Your task to perform on an android device: Open calendar and show me the second week of next month Image 0: 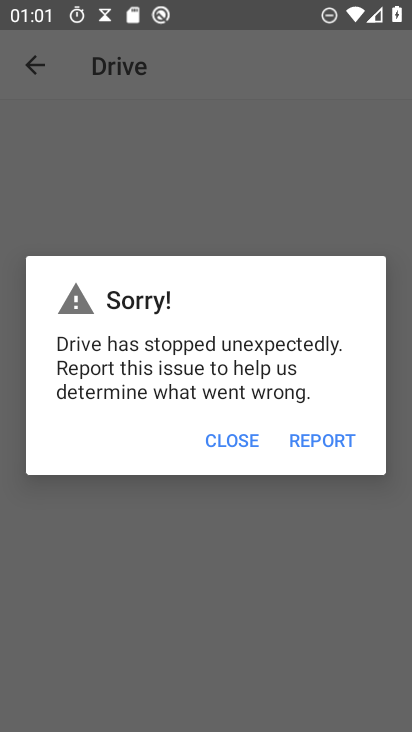
Step 0: press home button
Your task to perform on an android device: Open calendar and show me the second week of next month Image 1: 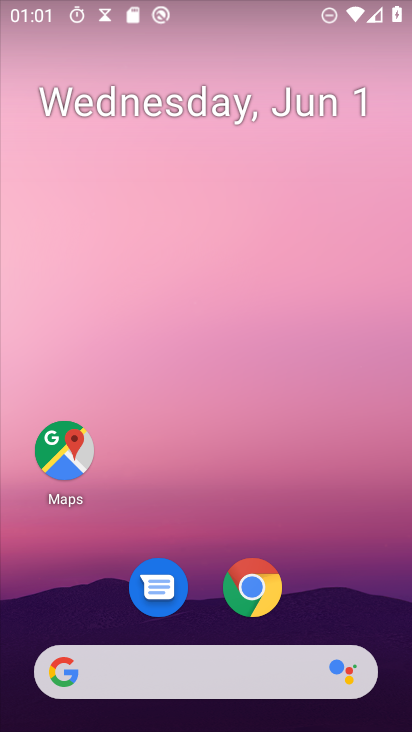
Step 1: drag from (312, 611) to (245, 54)
Your task to perform on an android device: Open calendar and show me the second week of next month Image 2: 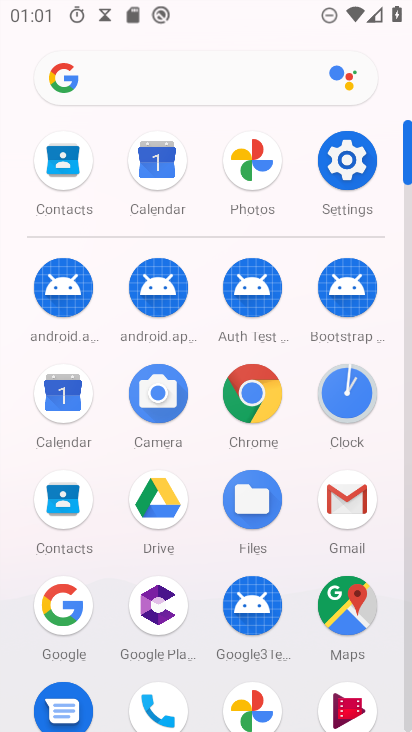
Step 2: click (55, 414)
Your task to perform on an android device: Open calendar and show me the second week of next month Image 3: 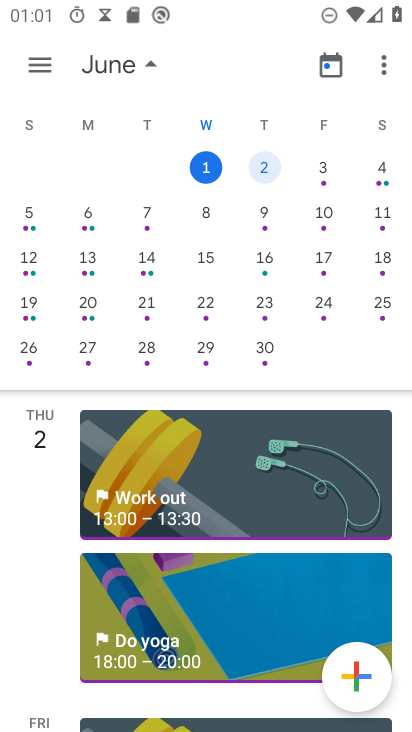
Step 3: click (266, 169)
Your task to perform on an android device: Open calendar and show me the second week of next month Image 4: 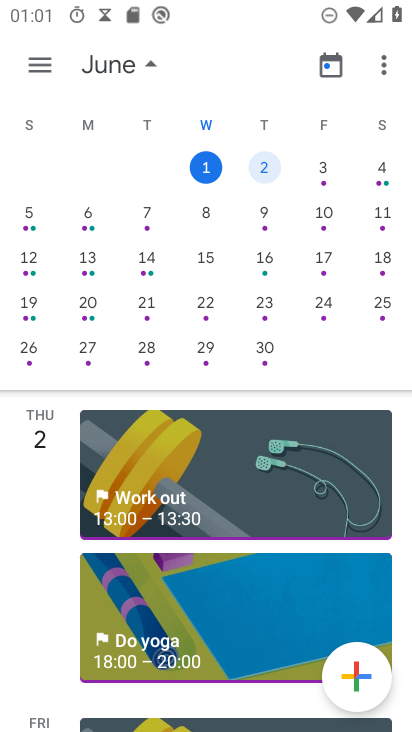
Step 4: click (23, 222)
Your task to perform on an android device: Open calendar and show me the second week of next month Image 5: 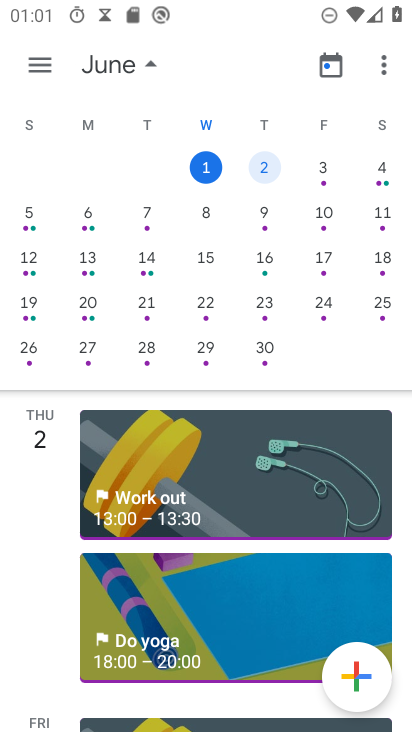
Step 5: click (42, 220)
Your task to perform on an android device: Open calendar and show me the second week of next month Image 6: 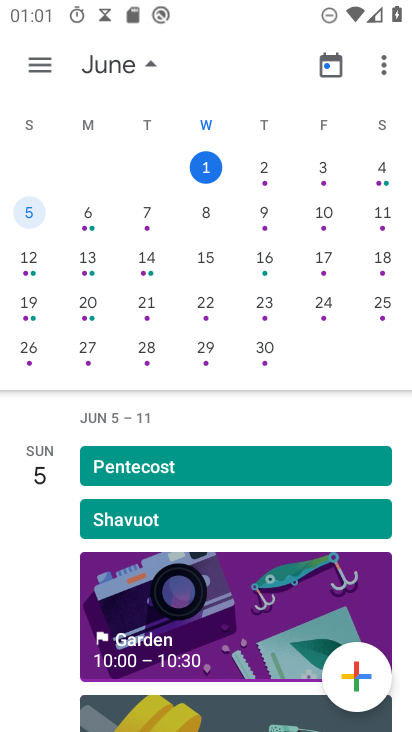
Step 6: task complete